Your task to perform on an android device: Open Yahoo.com Image 0: 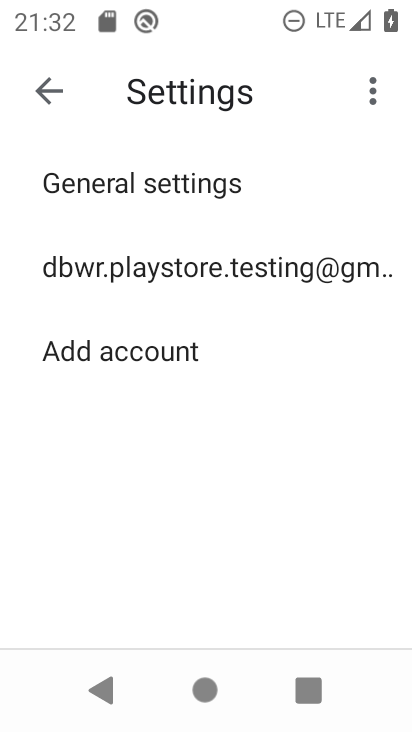
Step 0: press home button
Your task to perform on an android device: Open Yahoo.com Image 1: 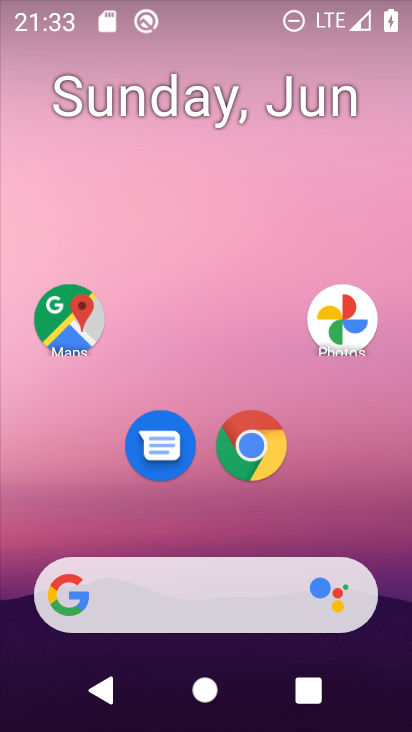
Step 1: click (61, 597)
Your task to perform on an android device: Open Yahoo.com Image 2: 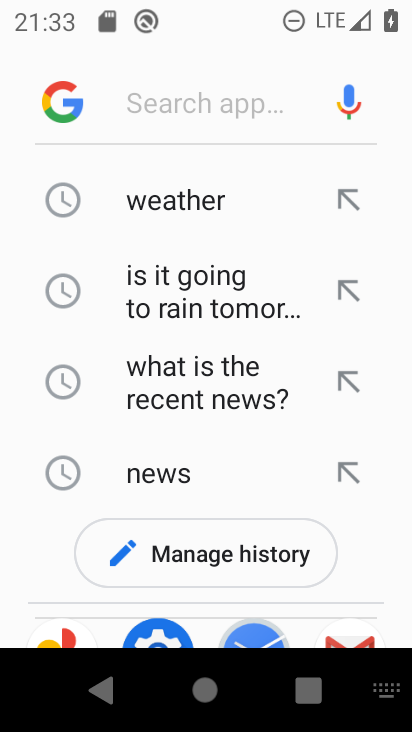
Step 2: type "Yahoo.com"
Your task to perform on an android device: Open Yahoo.com Image 3: 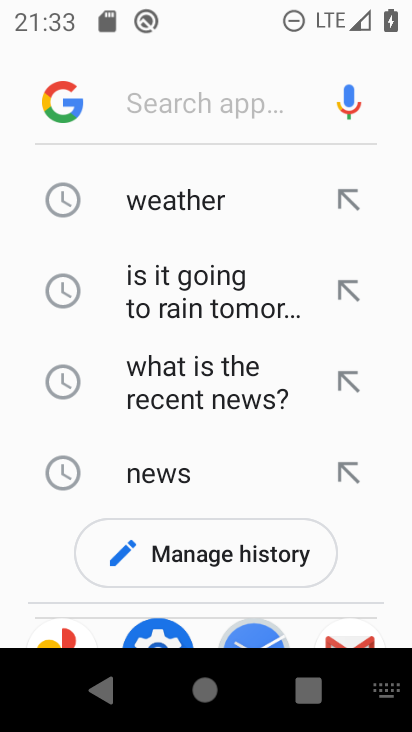
Step 3: click (195, 104)
Your task to perform on an android device: Open Yahoo.com Image 4: 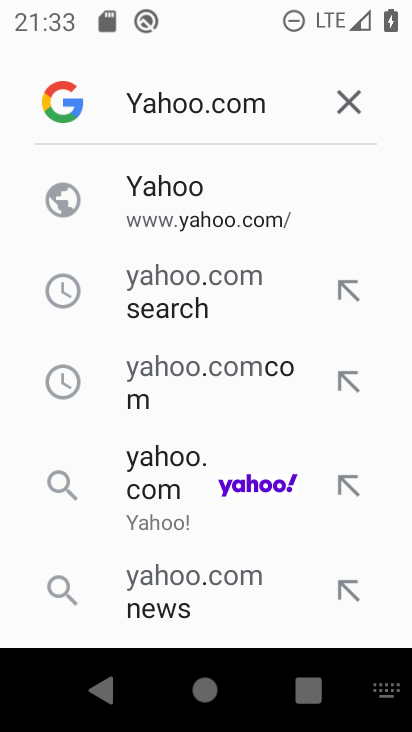
Step 4: click (167, 198)
Your task to perform on an android device: Open Yahoo.com Image 5: 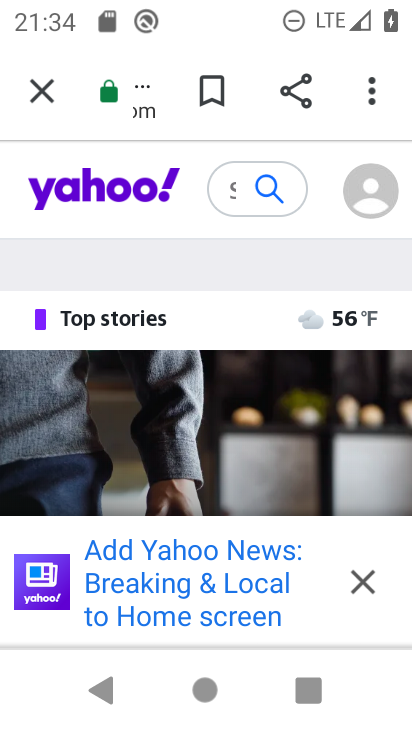
Step 5: task complete